Your task to perform on an android device: turn off priority inbox in the gmail app Image 0: 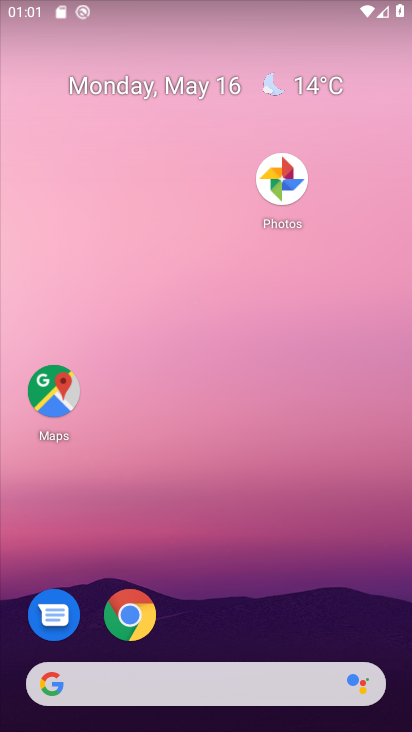
Step 0: drag from (165, 499) to (181, 177)
Your task to perform on an android device: turn off priority inbox in the gmail app Image 1: 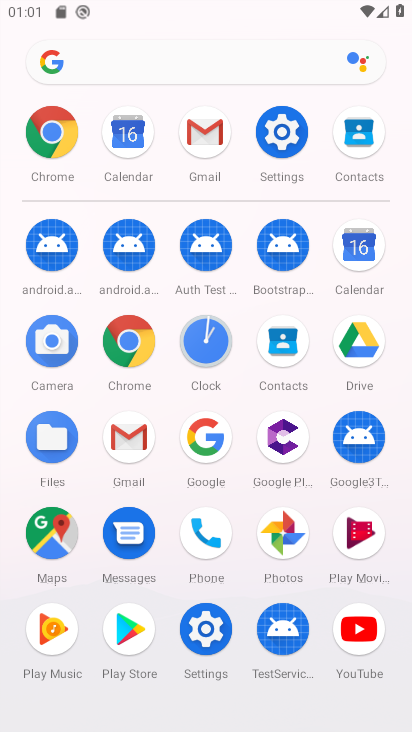
Step 1: click (130, 448)
Your task to perform on an android device: turn off priority inbox in the gmail app Image 2: 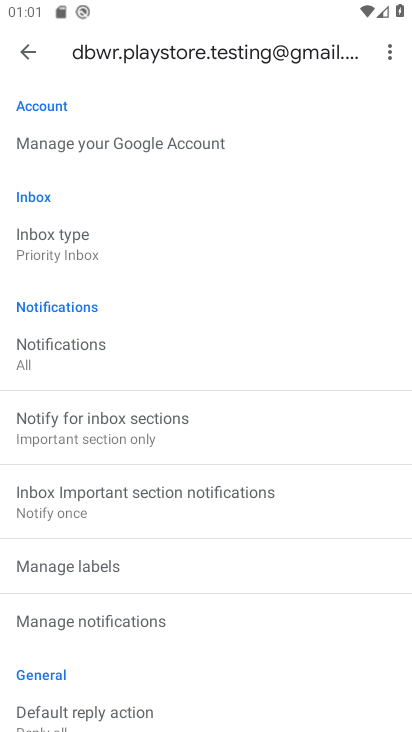
Step 2: click (57, 255)
Your task to perform on an android device: turn off priority inbox in the gmail app Image 3: 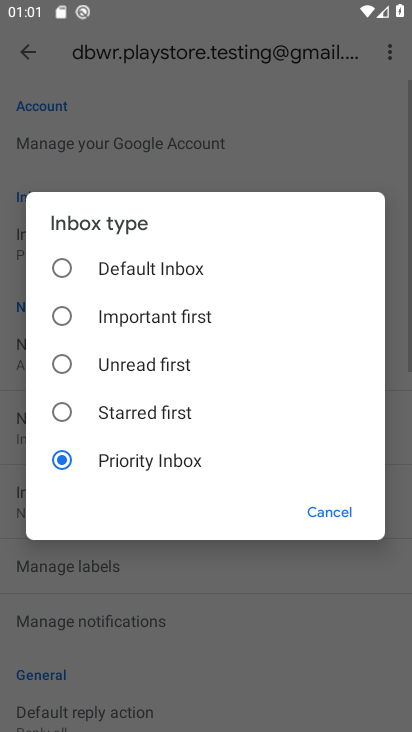
Step 3: click (57, 258)
Your task to perform on an android device: turn off priority inbox in the gmail app Image 4: 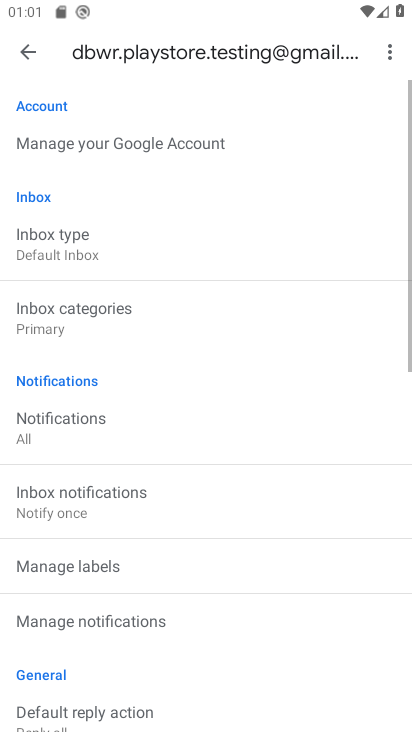
Step 4: task complete